Your task to perform on an android device: Open ESPN.com Image 0: 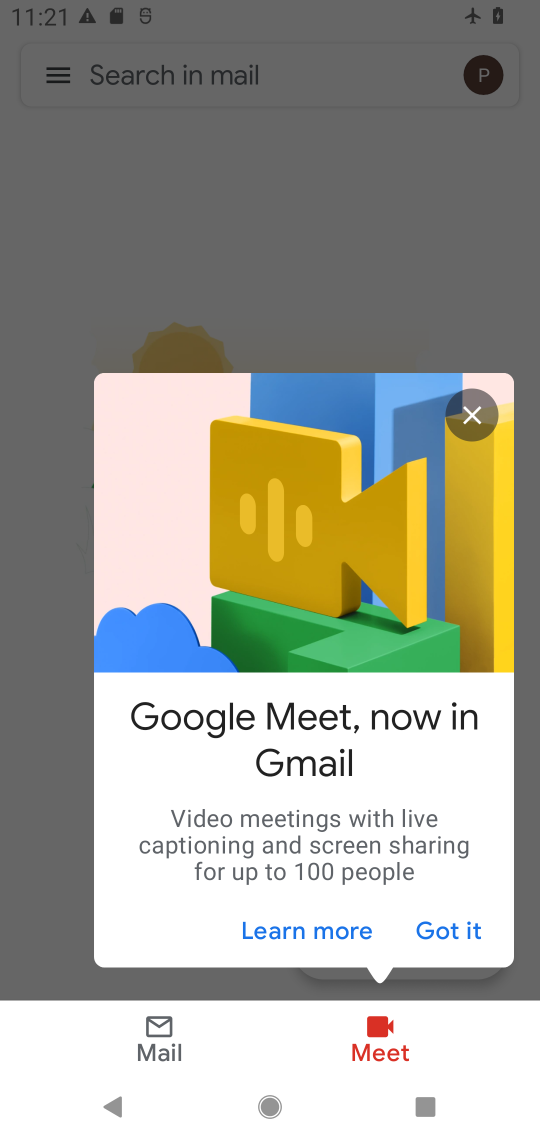
Step 0: press back button
Your task to perform on an android device: Open ESPN.com Image 1: 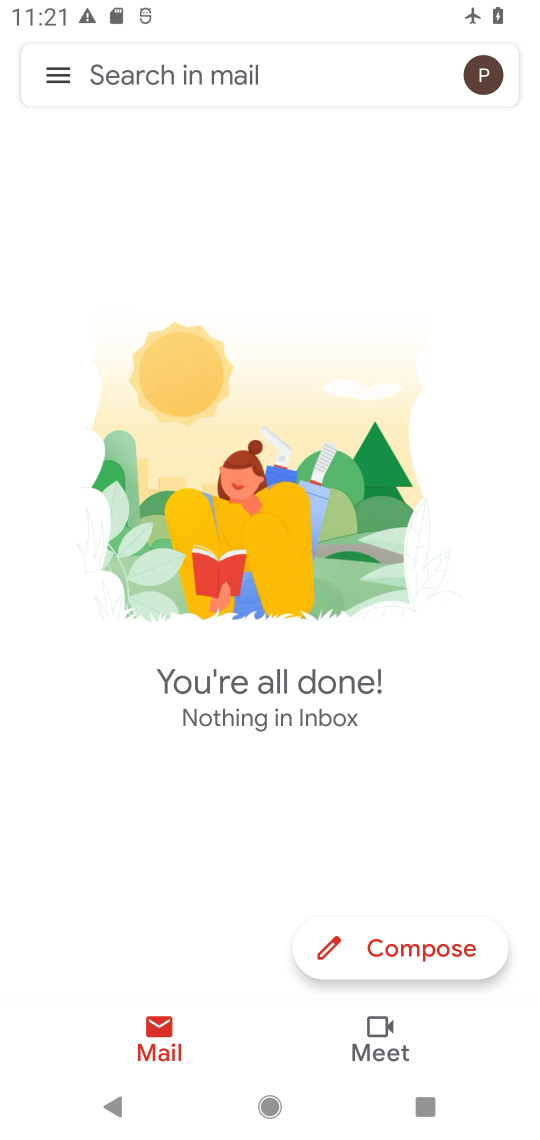
Step 1: press home button
Your task to perform on an android device: Open ESPN.com Image 2: 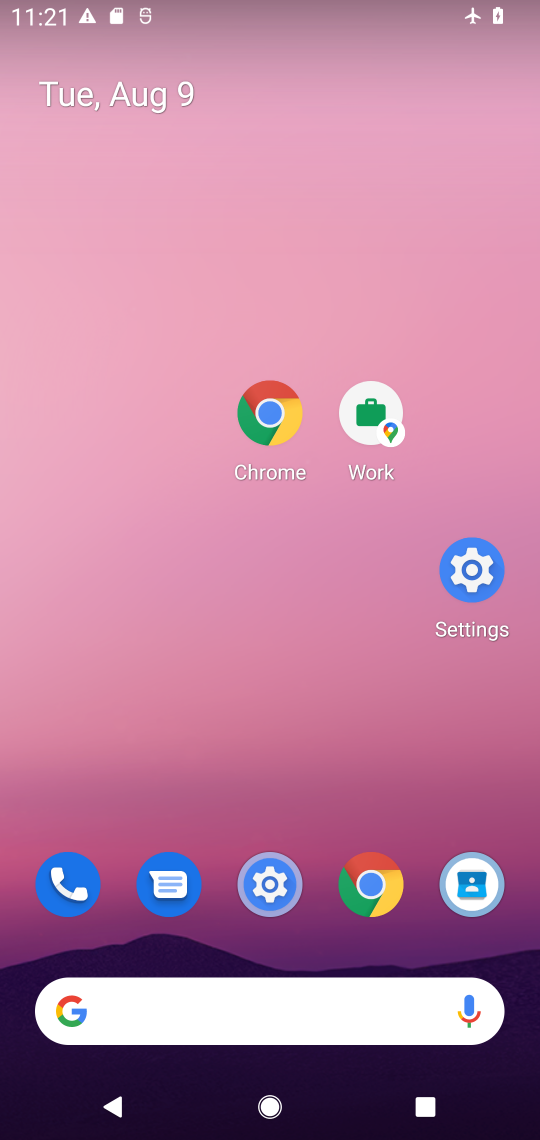
Step 2: drag from (340, 965) to (209, 206)
Your task to perform on an android device: Open ESPN.com Image 3: 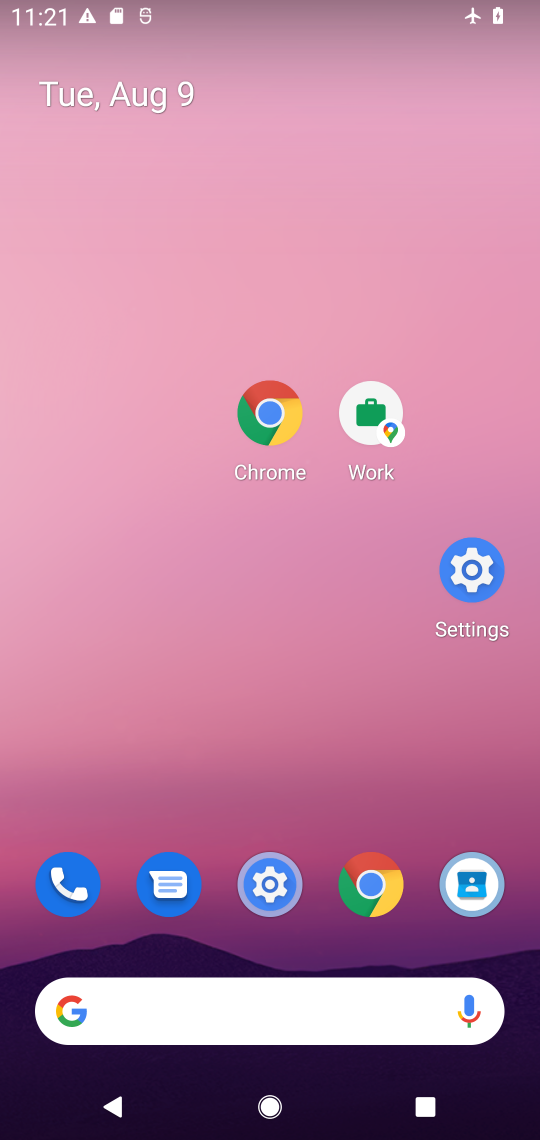
Step 3: drag from (291, 752) to (239, 380)
Your task to perform on an android device: Open ESPN.com Image 4: 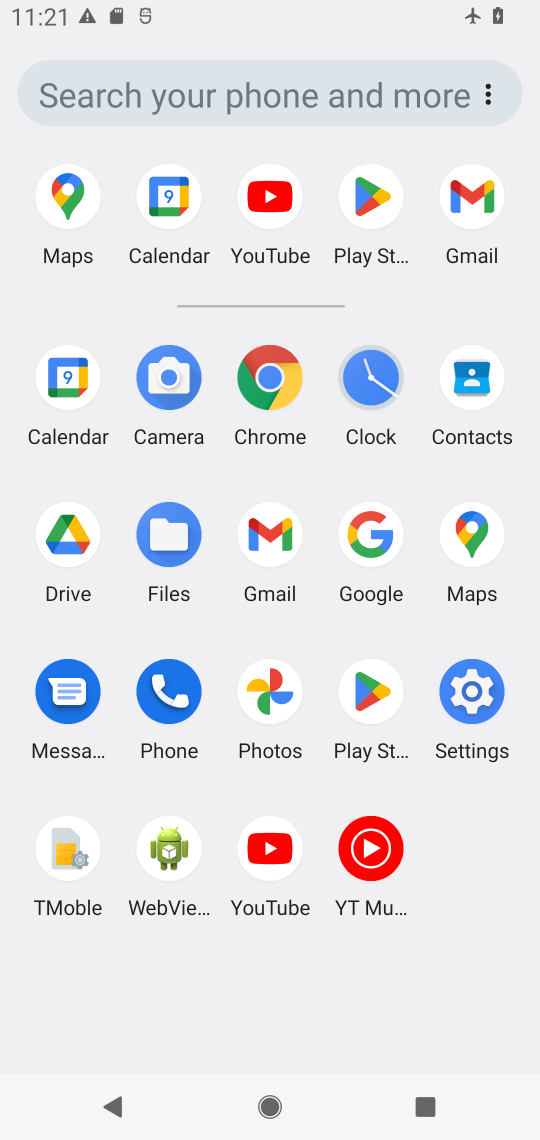
Step 4: click (260, 396)
Your task to perform on an android device: Open ESPN.com Image 5: 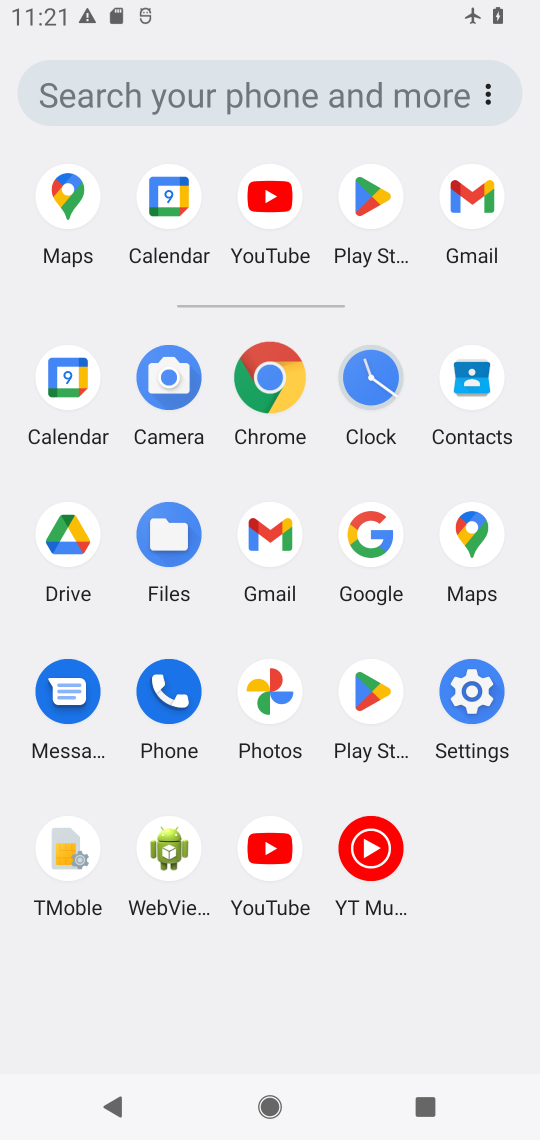
Step 5: click (261, 395)
Your task to perform on an android device: Open ESPN.com Image 6: 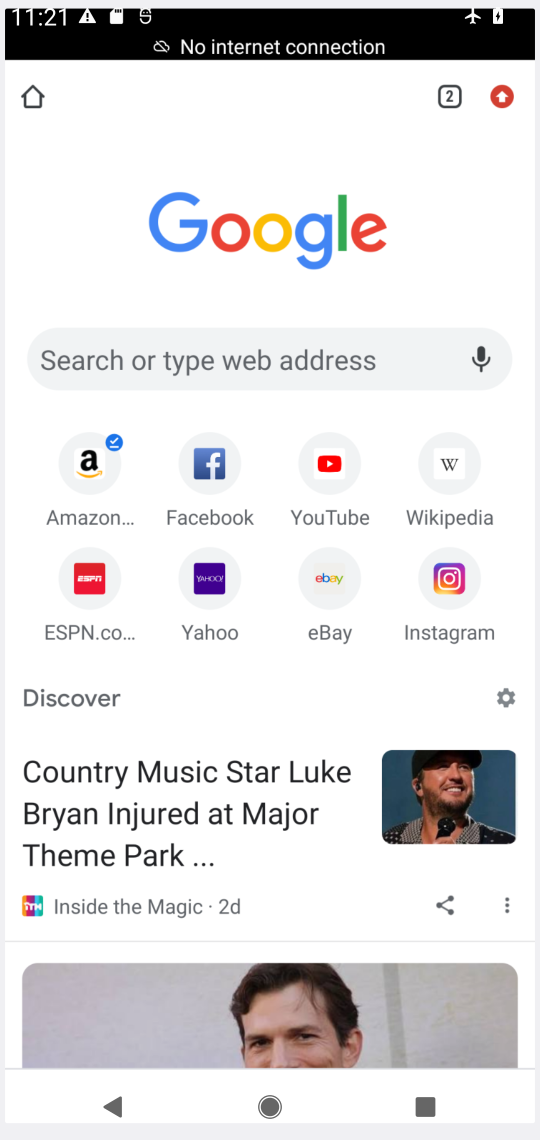
Step 6: click (259, 395)
Your task to perform on an android device: Open ESPN.com Image 7: 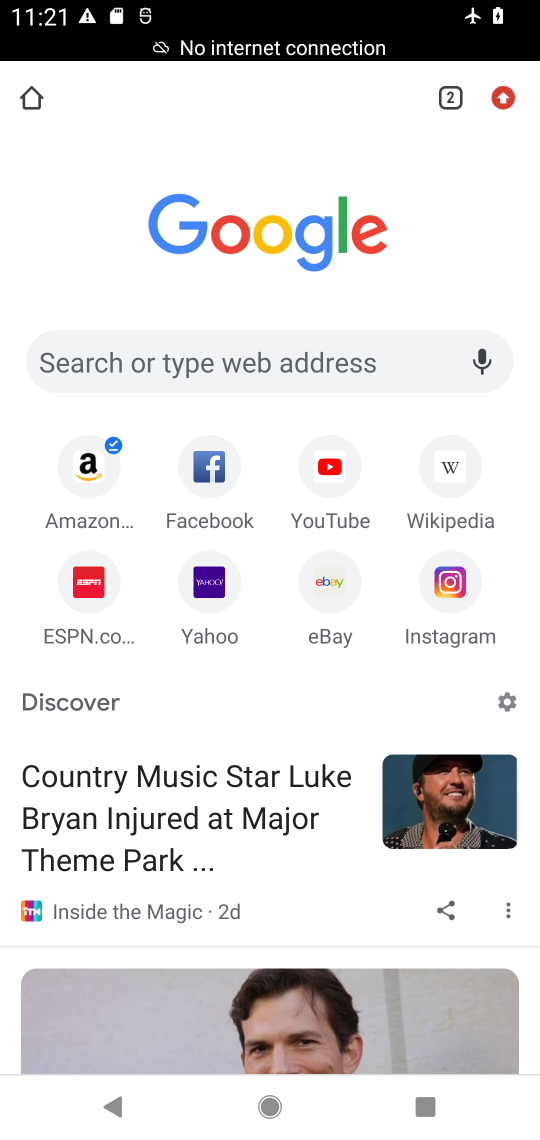
Step 7: click (84, 614)
Your task to perform on an android device: Open ESPN.com Image 8: 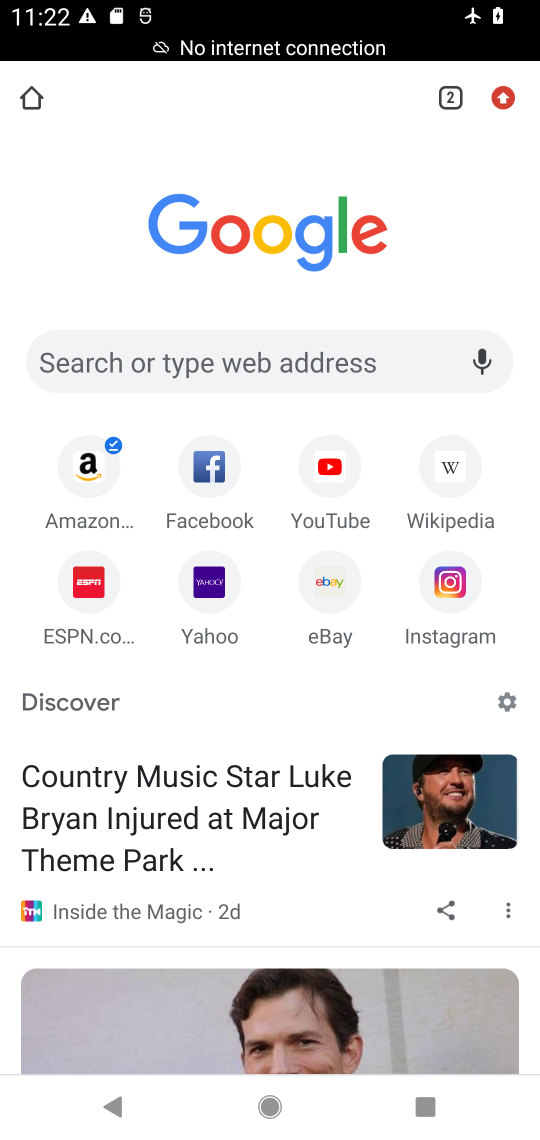
Step 8: click (98, 599)
Your task to perform on an android device: Open ESPN.com Image 9: 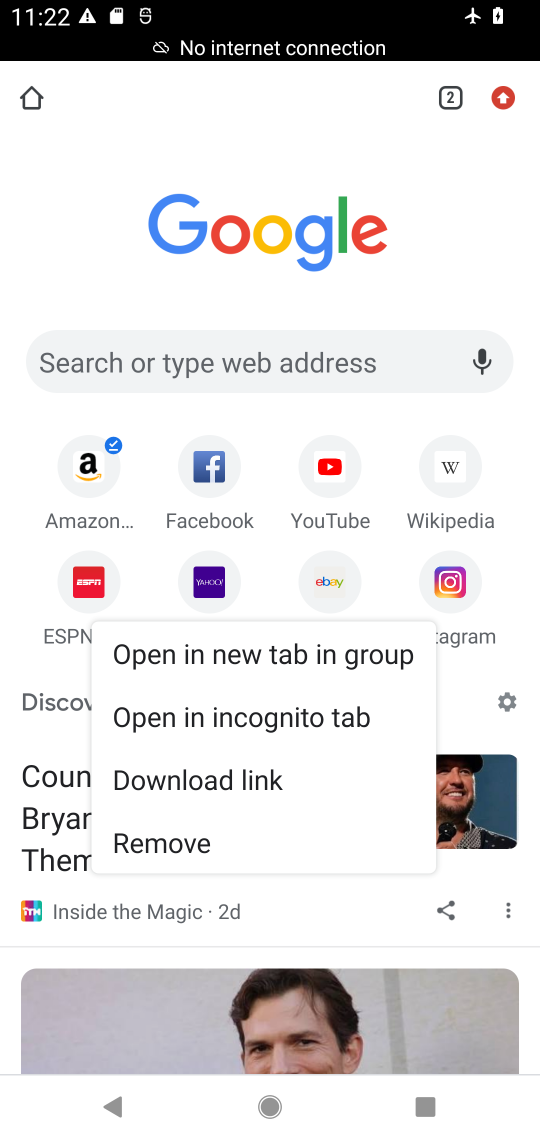
Step 9: click (107, 592)
Your task to perform on an android device: Open ESPN.com Image 10: 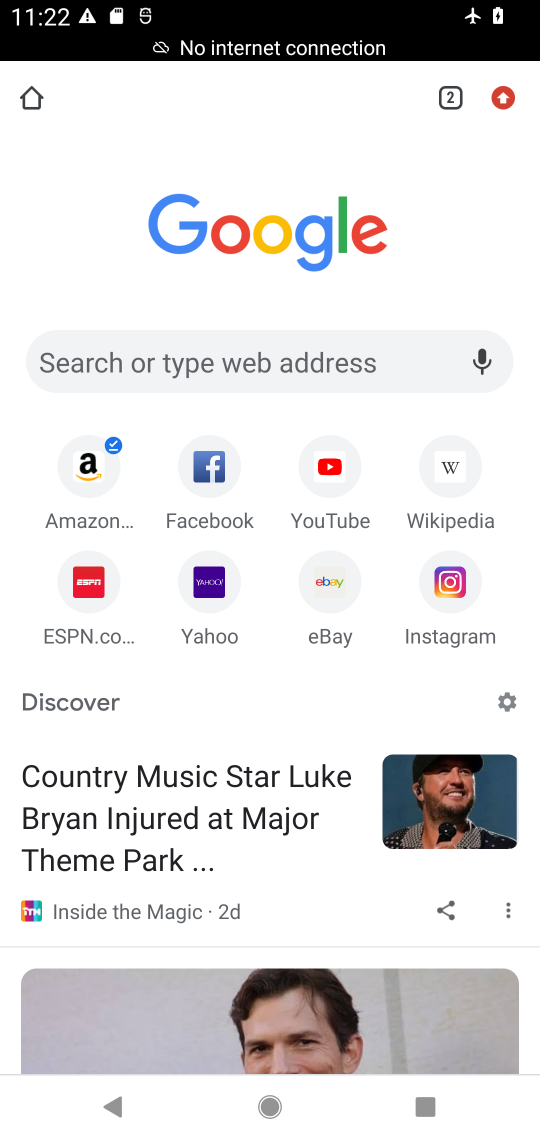
Step 10: click (60, 586)
Your task to perform on an android device: Open ESPN.com Image 11: 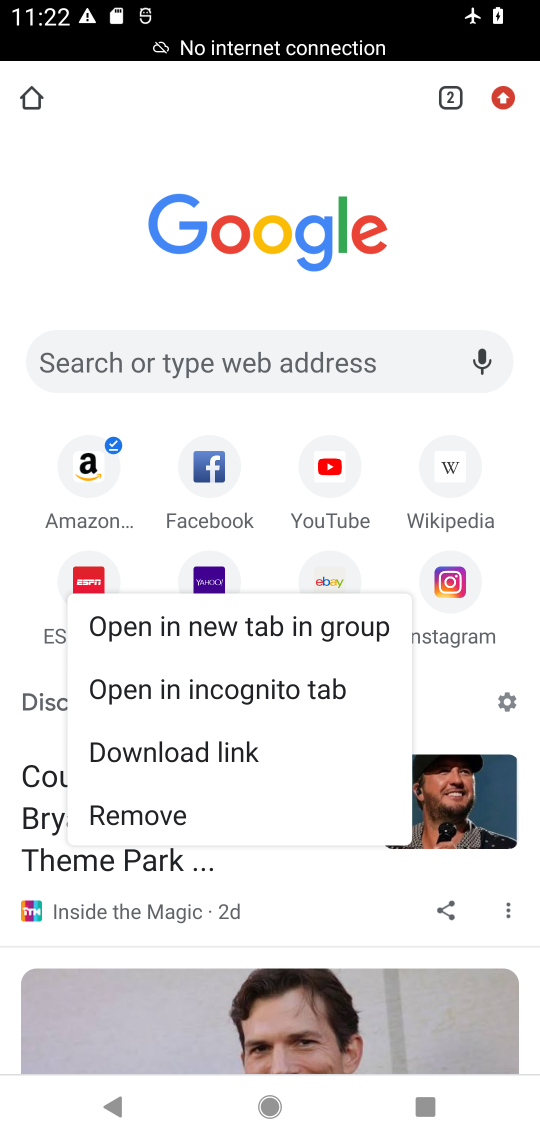
Step 11: click (85, 581)
Your task to perform on an android device: Open ESPN.com Image 12: 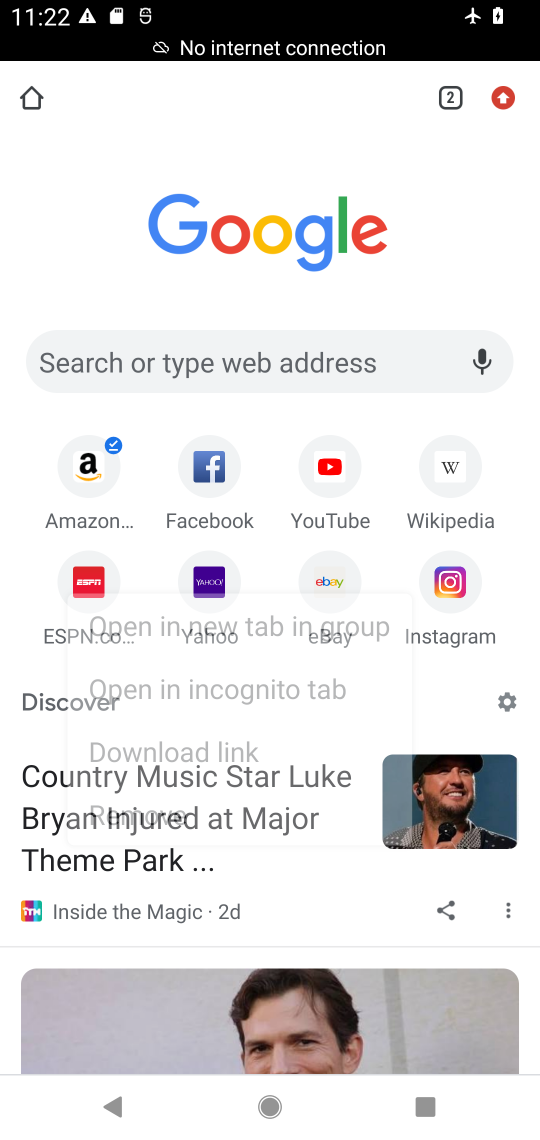
Step 12: click (81, 571)
Your task to perform on an android device: Open ESPN.com Image 13: 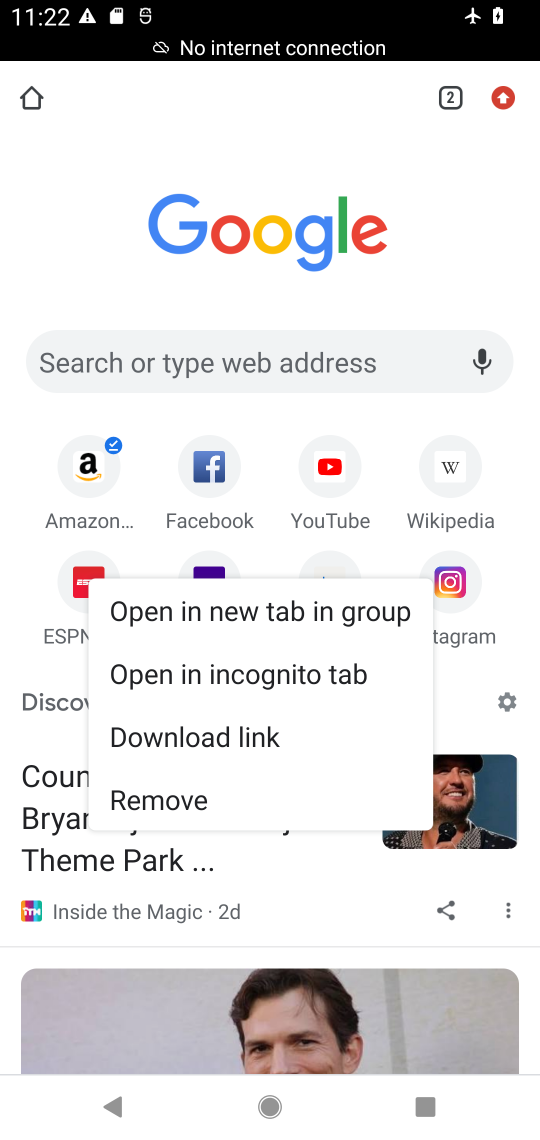
Step 13: task complete